Your task to perform on an android device: What's the weather going to be tomorrow? Image 0: 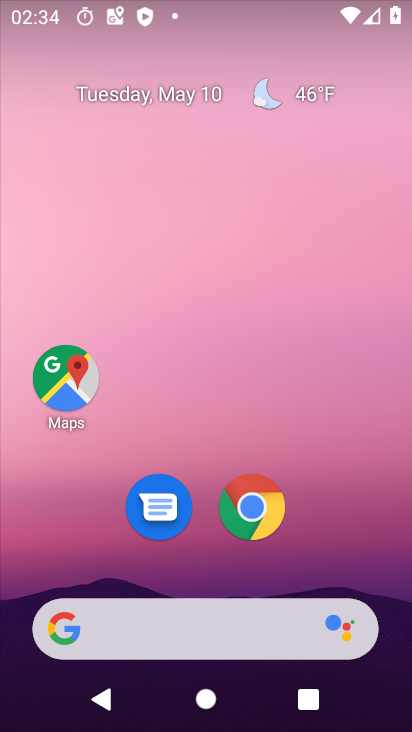
Step 0: drag from (252, 649) to (304, 223)
Your task to perform on an android device: What's the weather going to be tomorrow? Image 1: 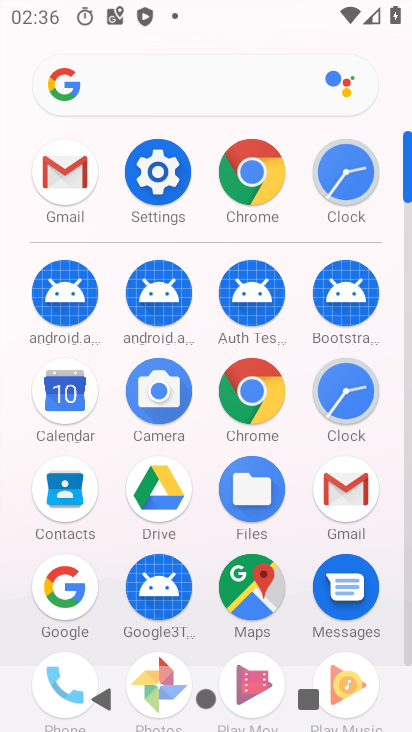
Step 1: click (157, 92)
Your task to perform on an android device: What's the weather going to be tomorrow? Image 2: 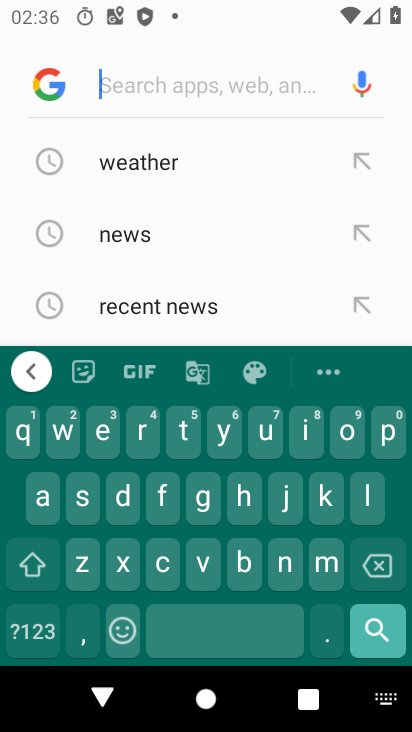
Step 2: click (171, 163)
Your task to perform on an android device: What's the weather going to be tomorrow? Image 3: 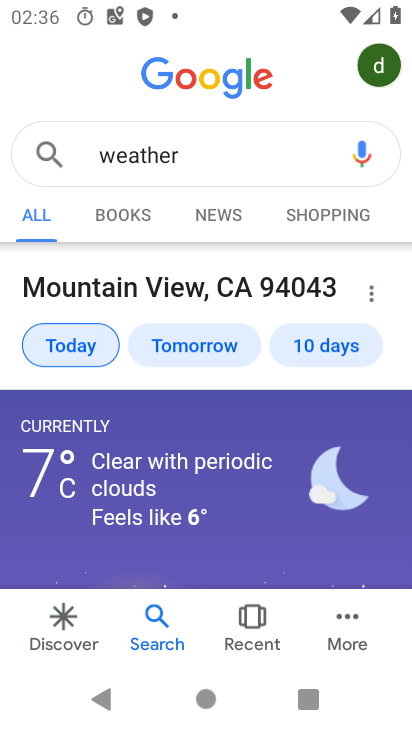
Step 3: click (190, 342)
Your task to perform on an android device: What's the weather going to be tomorrow? Image 4: 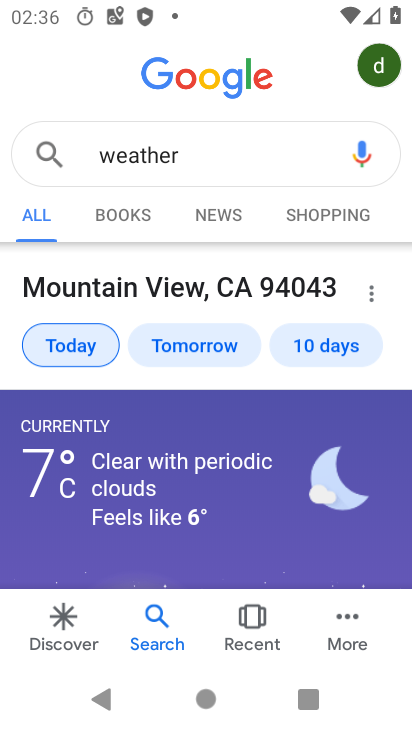
Step 4: click (179, 353)
Your task to perform on an android device: What's the weather going to be tomorrow? Image 5: 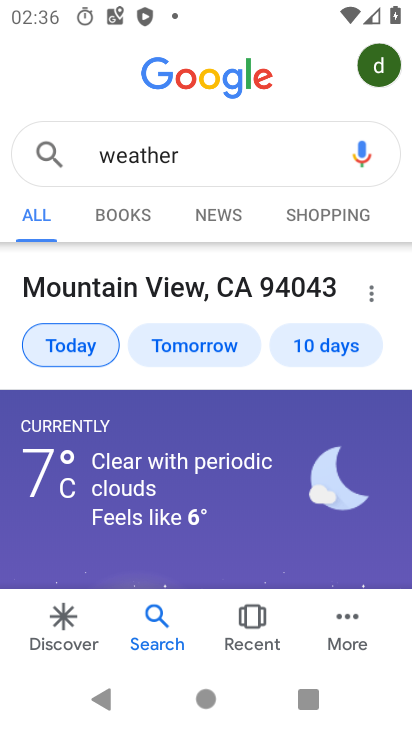
Step 5: click (179, 351)
Your task to perform on an android device: What's the weather going to be tomorrow? Image 6: 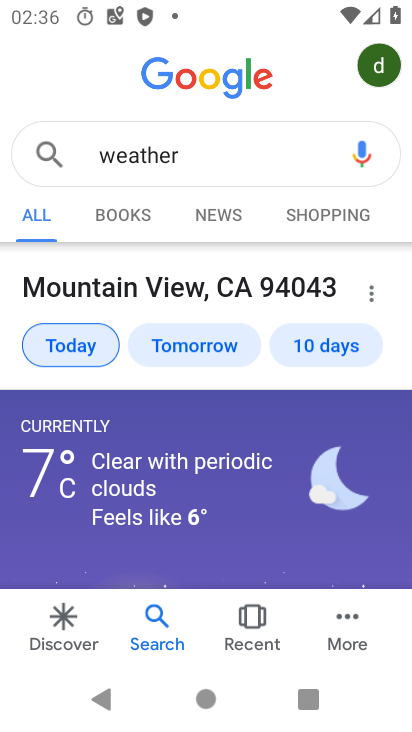
Step 6: click (178, 354)
Your task to perform on an android device: What's the weather going to be tomorrow? Image 7: 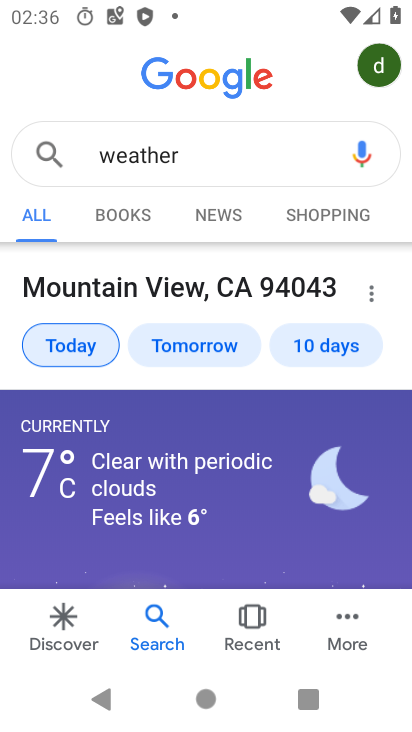
Step 7: click (181, 348)
Your task to perform on an android device: What's the weather going to be tomorrow? Image 8: 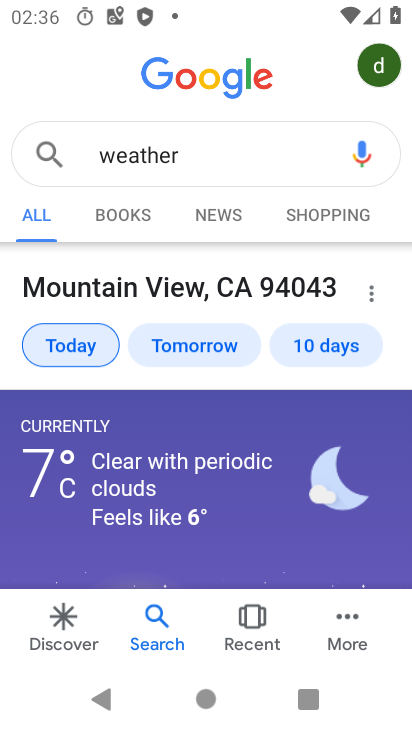
Step 8: task complete